Your task to perform on an android device: change notification settings in the gmail app Image 0: 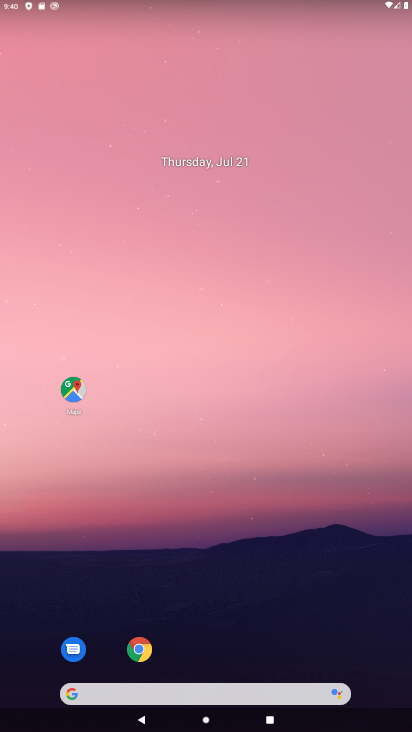
Step 0: click (345, 630)
Your task to perform on an android device: change notification settings in the gmail app Image 1: 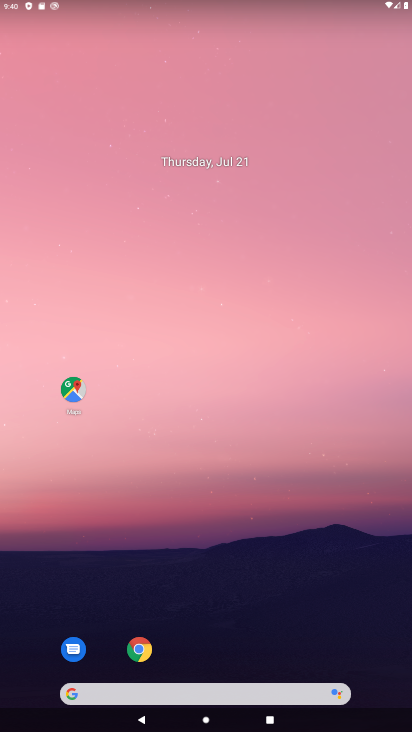
Step 1: drag from (345, 630) to (289, 258)
Your task to perform on an android device: change notification settings in the gmail app Image 2: 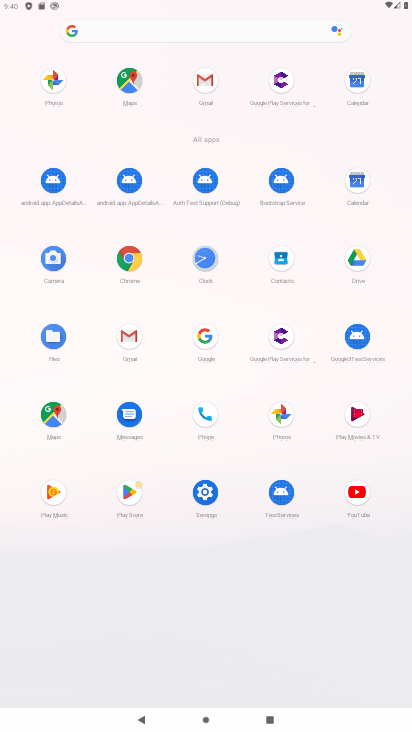
Step 2: click (132, 338)
Your task to perform on an android device: change notification settings in the gmail app Image 3: 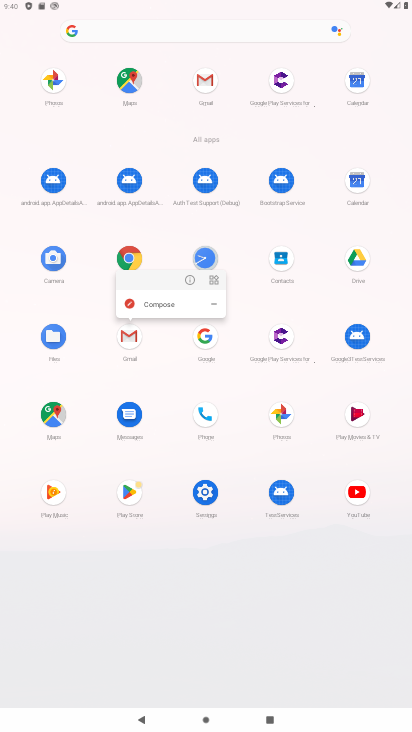
Step 3: click (187, 278)
Your task to perform on an android device: change notification settings in the gmail app Image 4: 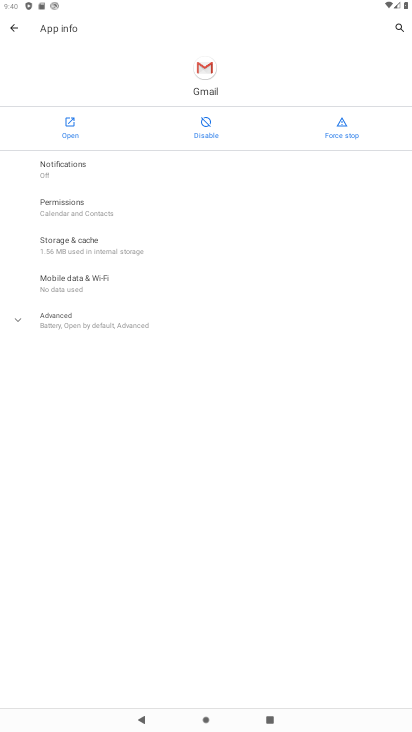
Step 4: click (148, 162)
Your task to perform on an android device: change notification settings in the gmail app Image 5: 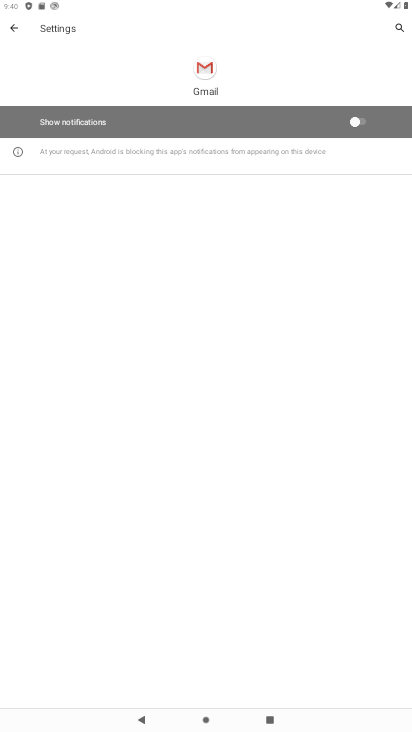
Step 5: click (353, 125)
Your task to perform on an android device: change notification settings in the gmail app Image 6: 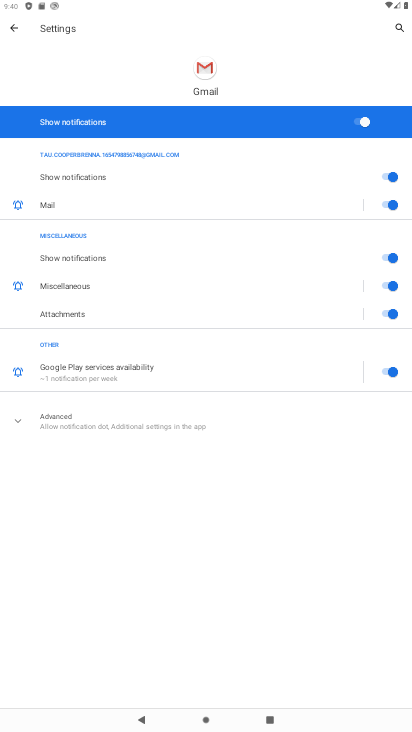
Step 6: task complete